Your task to perform on an android device: delete the emails in spam in the gmail app Image 0: 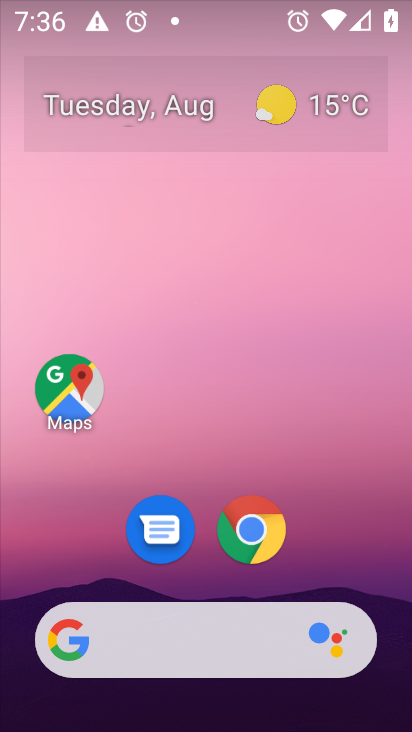
Step 0: press home button
Your task to perform on an android device: delete the emails in spam in the gmail app Image 1: 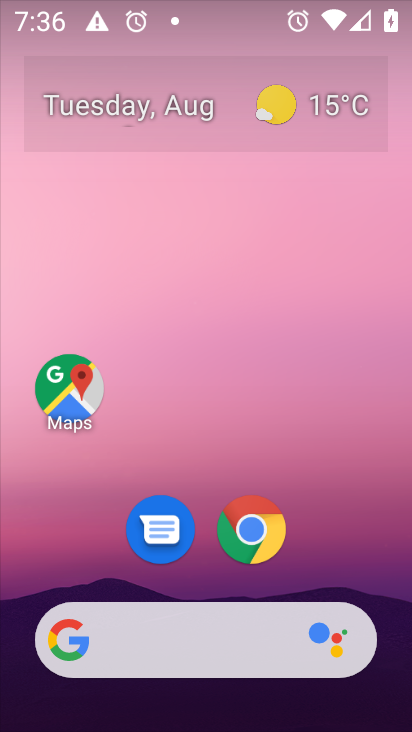
Step 1: drag from (217, 547) to (186, 39)
Your task to perform on an android device: delete the emails in spam in the gmail app Image 2: 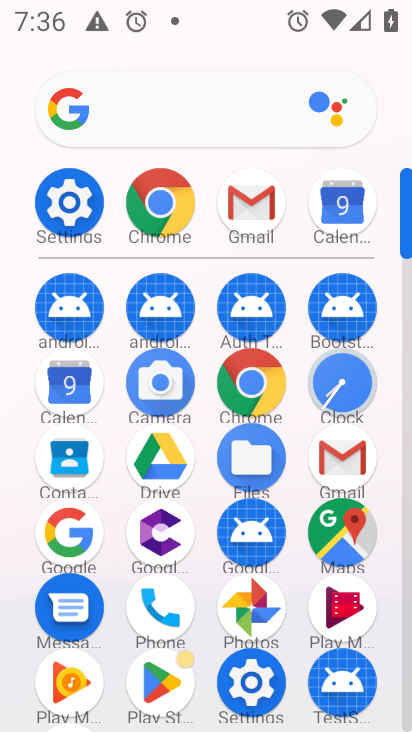
Step 2: click (252, 203)
Your task to perform on an android device: delete the emails in spam in the gmail app Image 3: 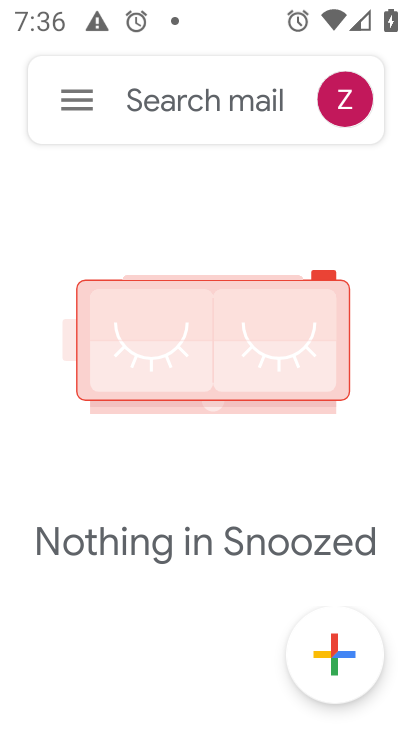
Step 3: click (79, 98)
Your task to perform on an android device: delete the emails in spam in the gmail app Image 4: 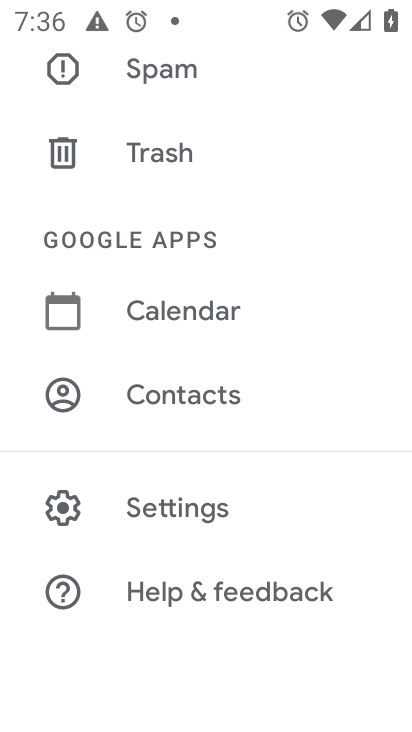
Step 4: click (155, 75)
Your task to perform on an android device: delete the emails in spam in the gmail app Image 5: 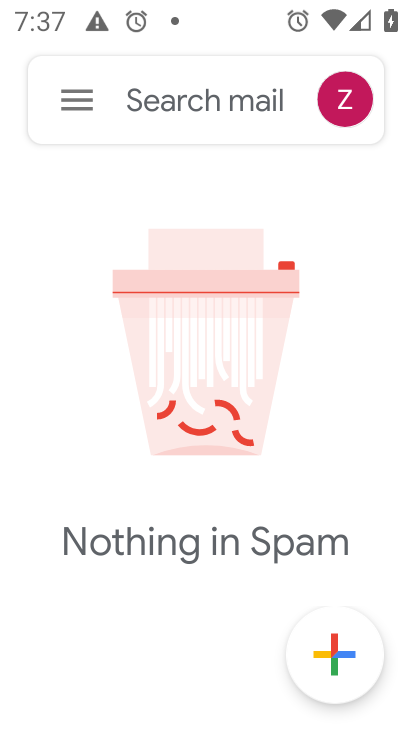
Step 5: task complete